Your task to perform on an android device: Go to sound settings Image 0: 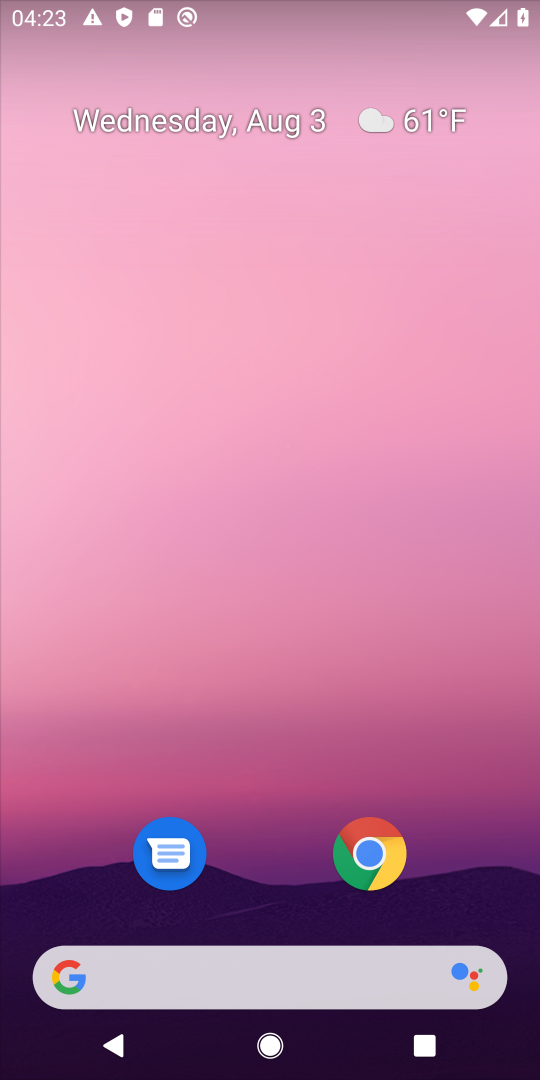
Step 0: drag from (259, 893) to (263, 17)
Your task to perform on an android device: Go to sound settings Image 1: 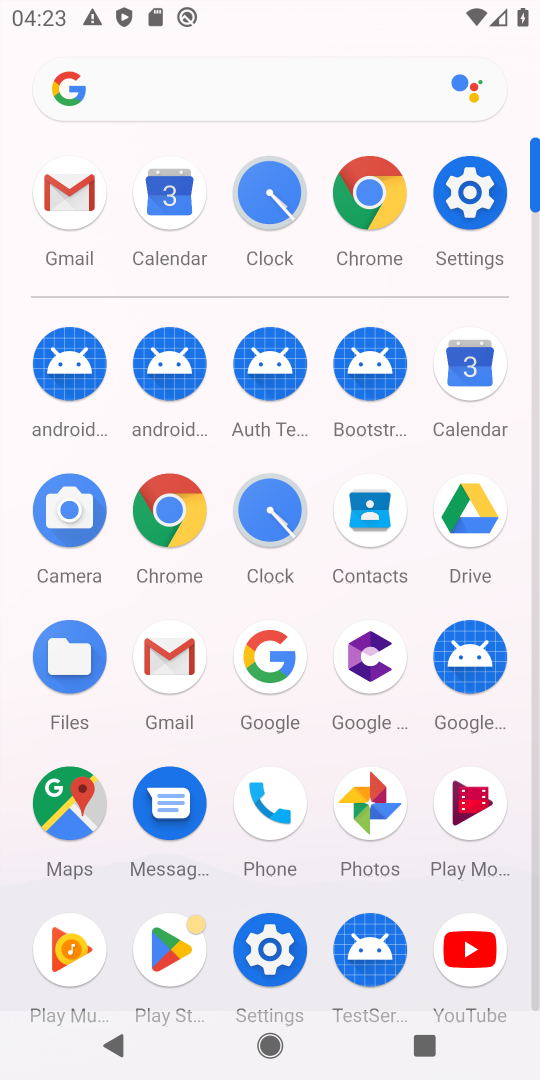
Step 1: click (459, 194)
Your task to perform on an android device: Go to sound settings Image 2: 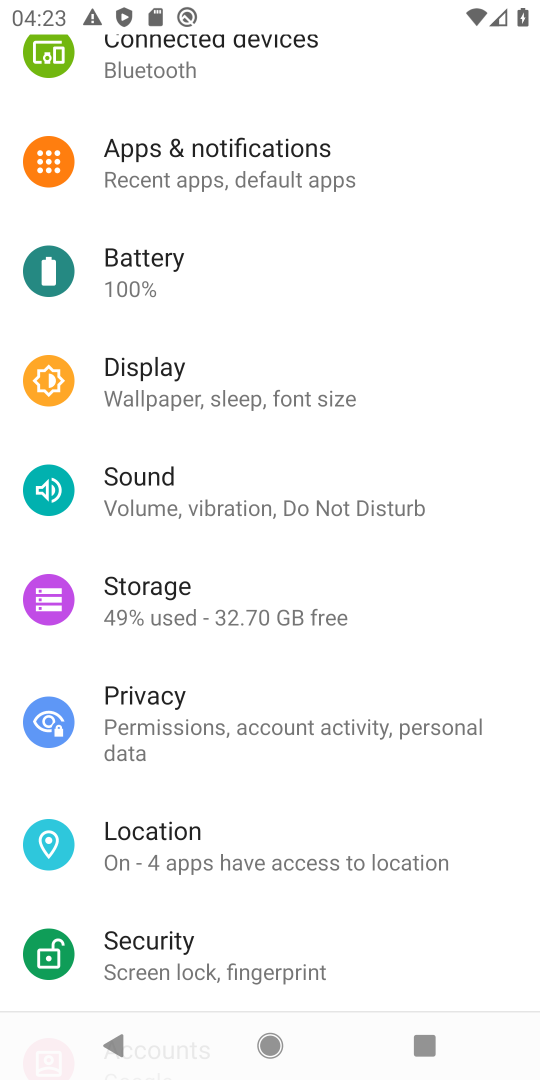
Step 2: click (146, 492)
Your task to perform on an android device: Go to sound settings Image 3: 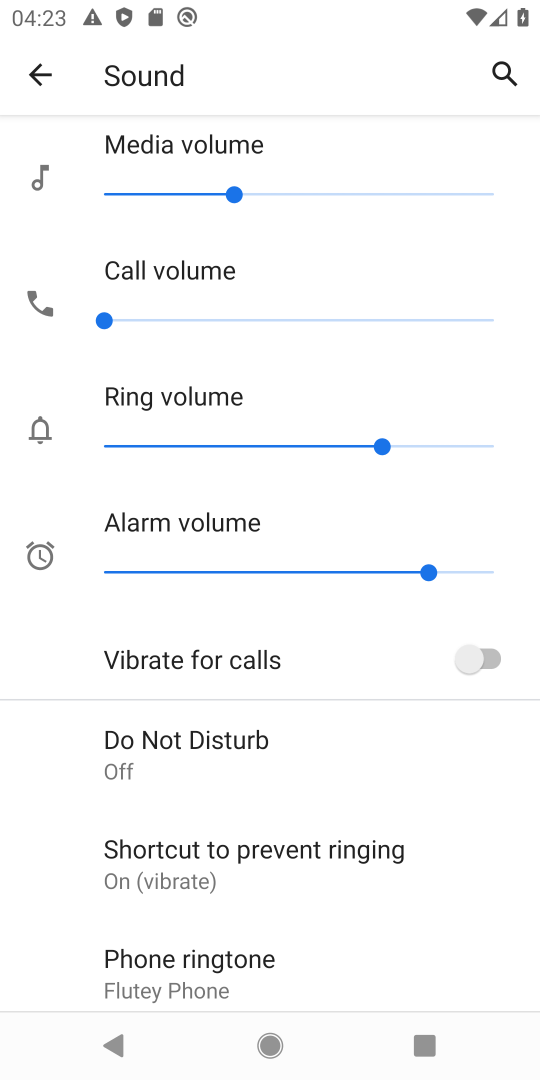
Step 3: task complete